Your task to perform on an android device: turn on improve location accuracy Image 0: 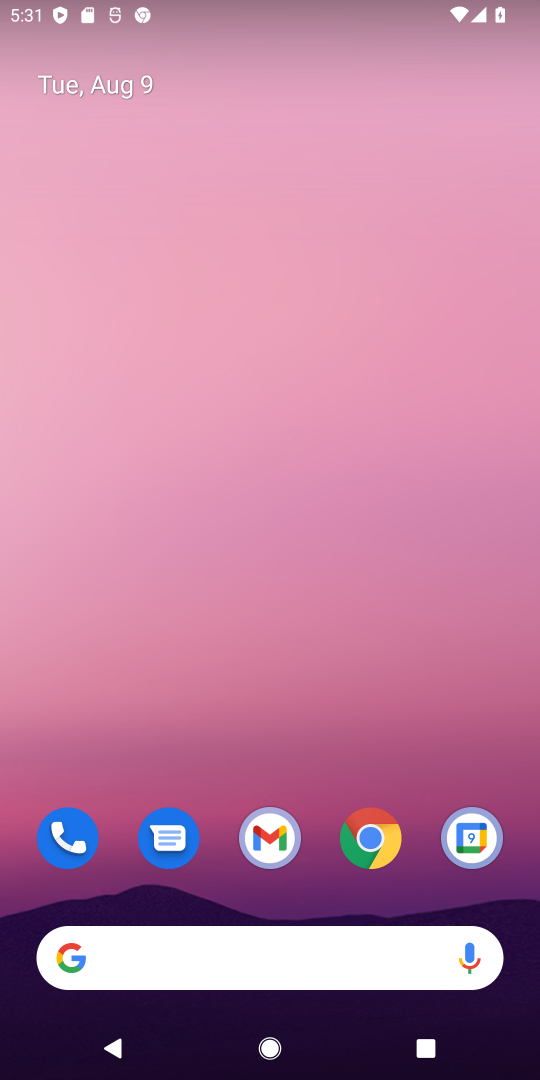
Step 0: drag from (303, 769) to (232, 179)
Your task to perform on an android device: turn on improve location accuracy Image 1: 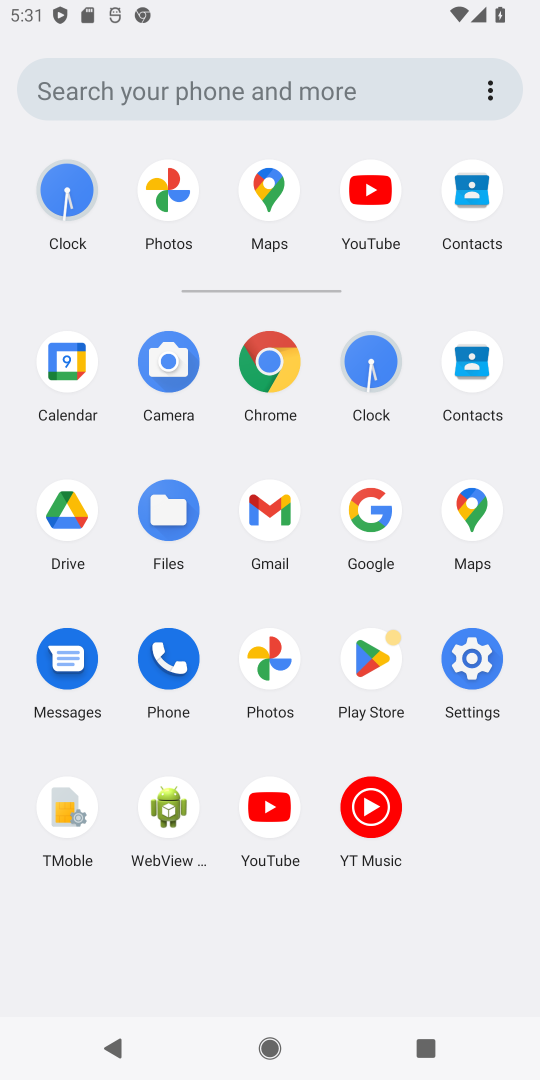
Step 1: click (476, 688)
Your task to perform on an android device: turn on improve location accuracy Image 2: 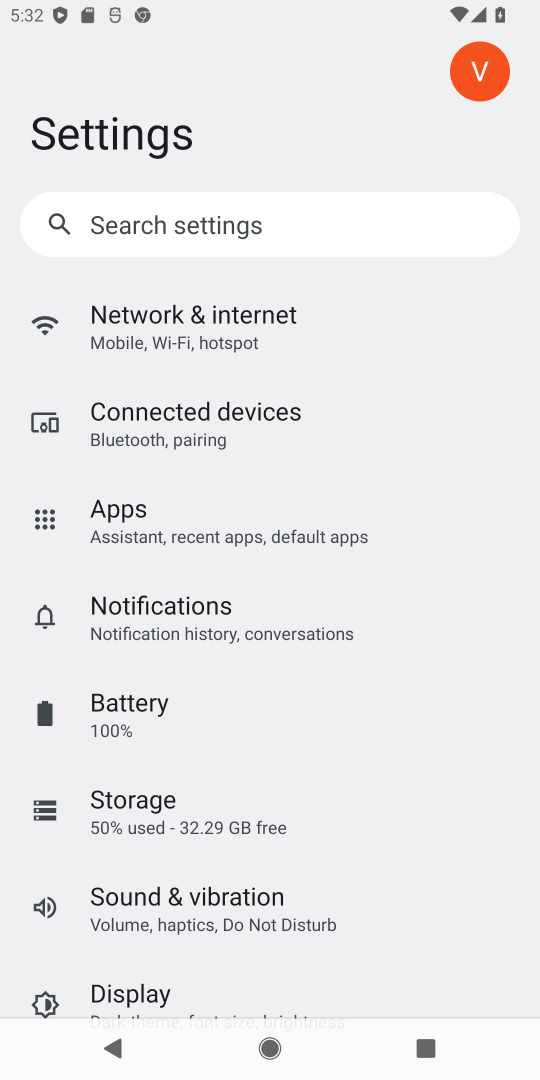
Step 2: drag from (224, 957) to (250, 476)
Your task to perform on an android device: turn on improve location accuracy Image 3: 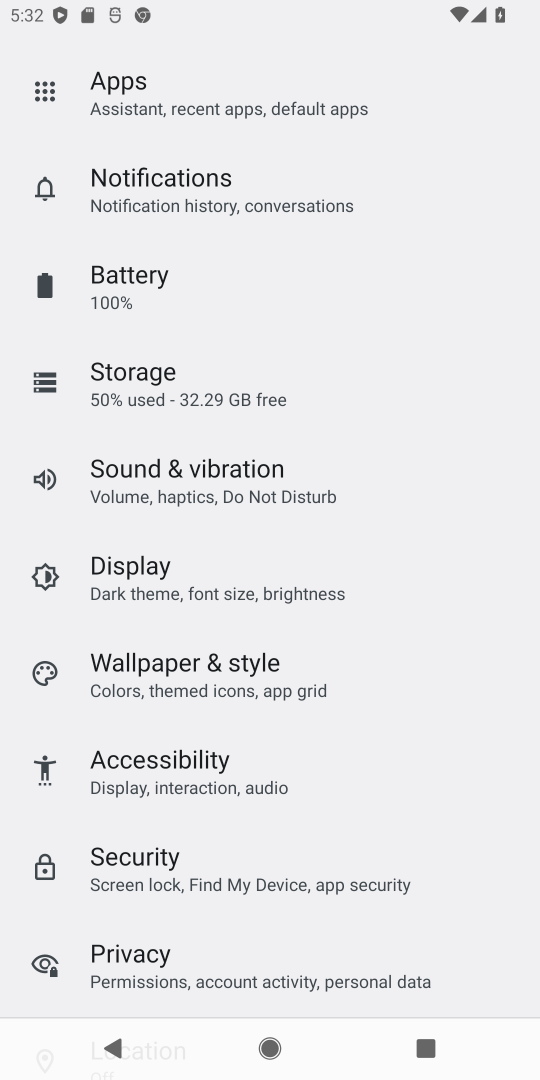
Step 3: drag from (290, 962) to (202, 334)
Your task to perform on an android device: turn on improve location accuracy Image 4: 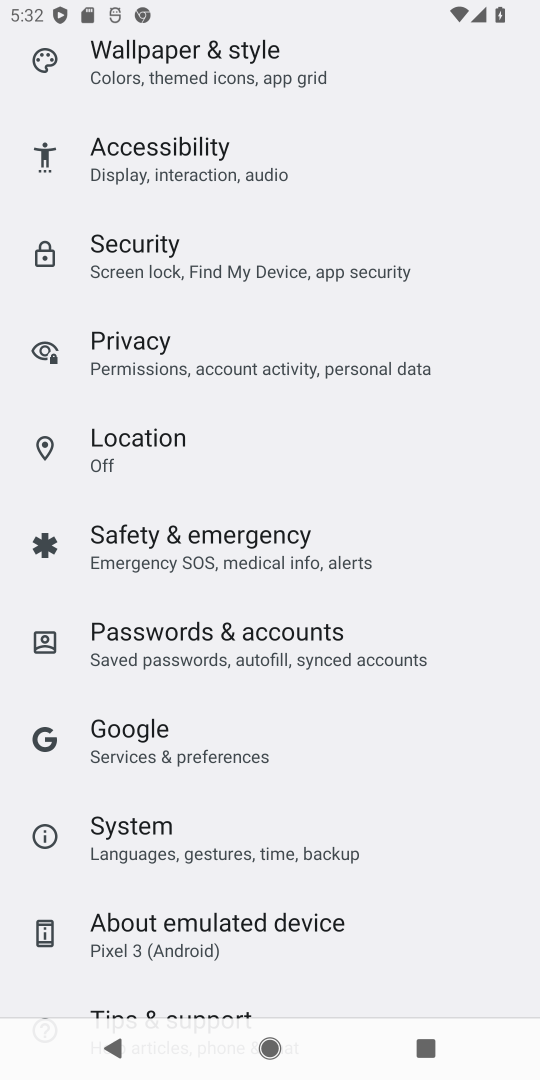
Step 4: click (229, 460)
Your task to perform on an android device: turn on improve location accuracy Image 5: 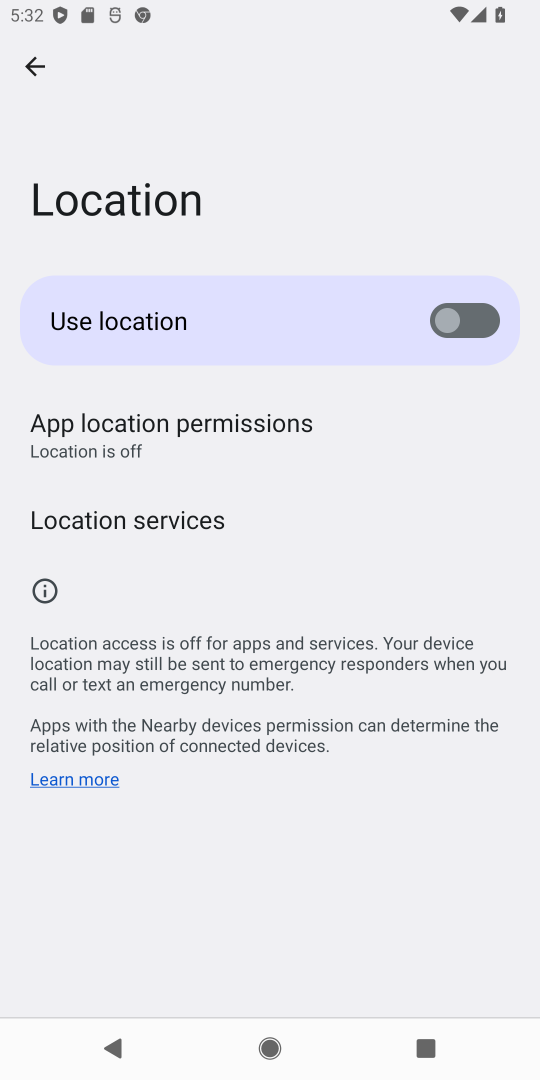
Step 5: click (262, 532)
Your task to perform on an android device: turn on improve location accuracy Image 6: 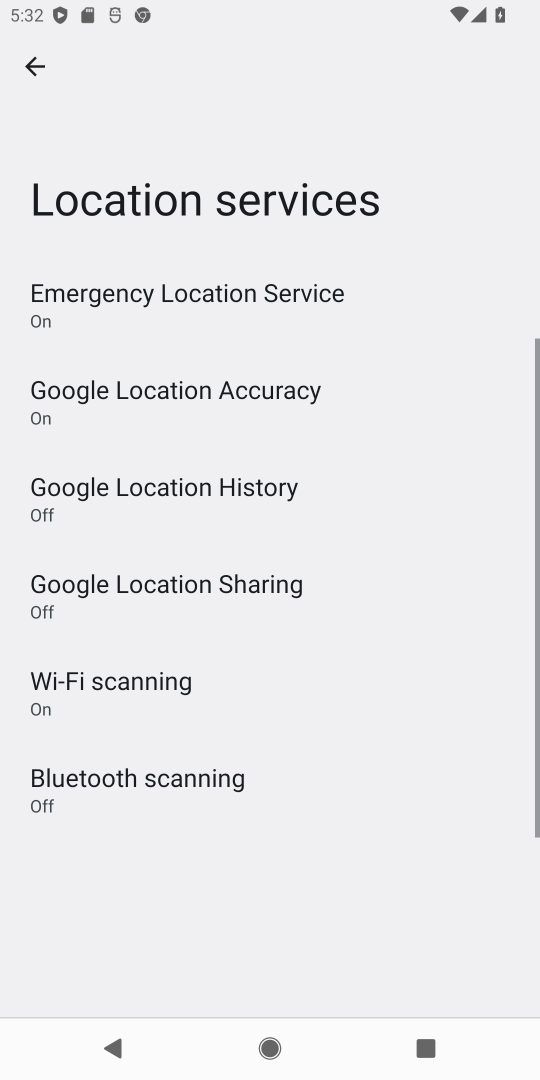
Step 6: click (260, 403)
Your task to perform on an android device: turn on improve location accuracy Image 7: 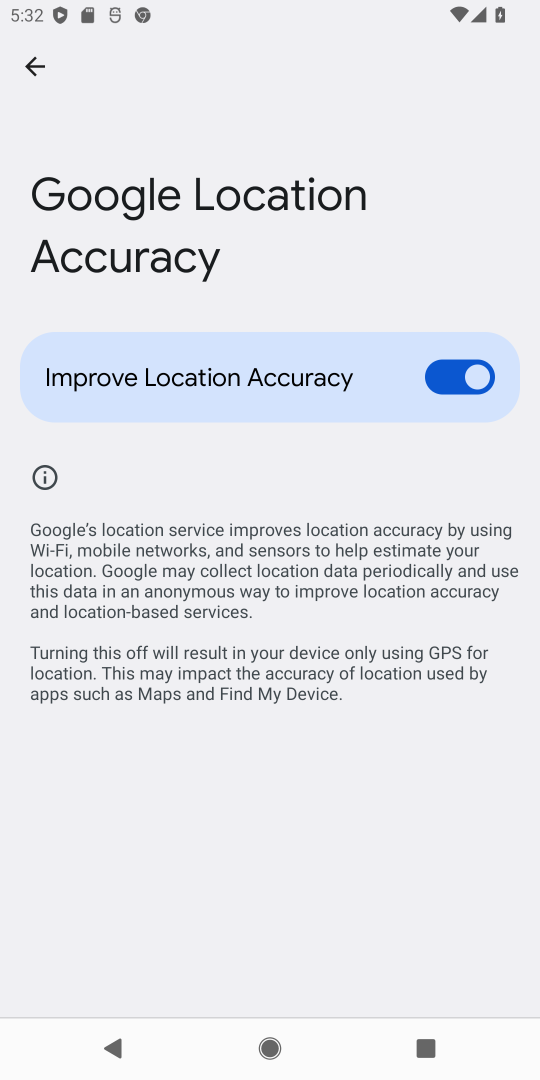
Step 7: task complete